Your task to perform on an android device: Open eBay Image 0: 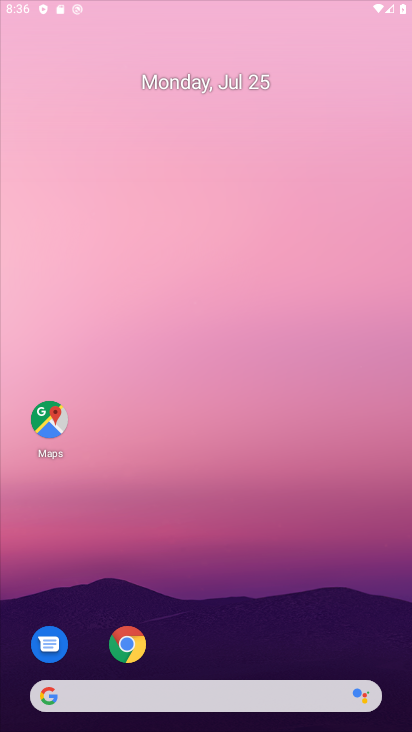
Step 0: click (119, 644)
Your task to perform on an android device: Open eBay Image 1: 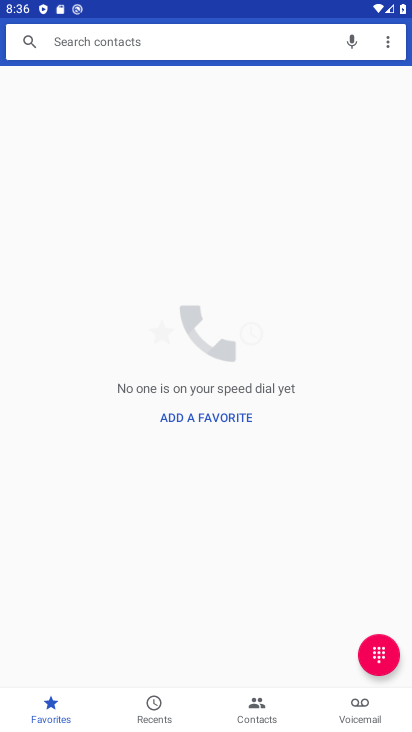
Step 1: press home button
Your task to perform on an android device: Open eBay Image 2: 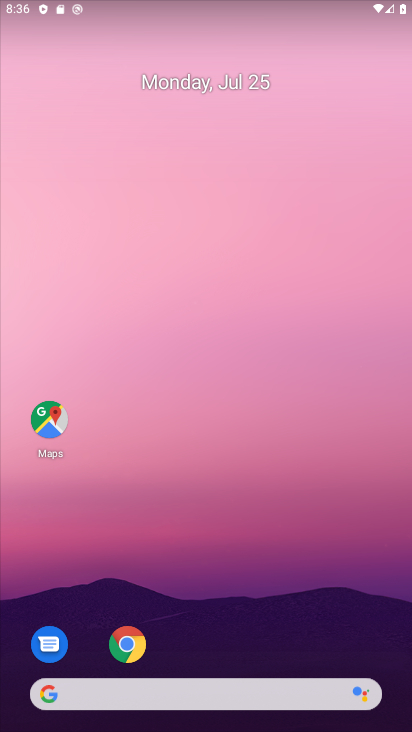
Step 2: click (127, 633)
Your task to perform on an android device: Open eBay Image 3: 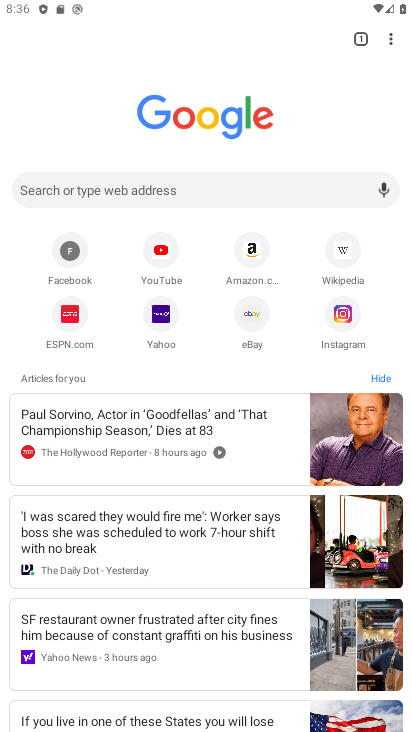
Step 3: click (54, 191)
Your task to perform on an android device: Open eBay Image 4: 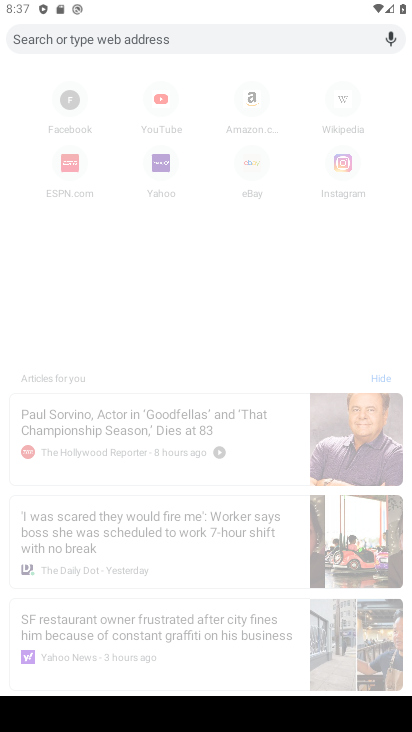
Step 4: type "eBay"
Your task to perform on an android device: Open eBay Image 5: 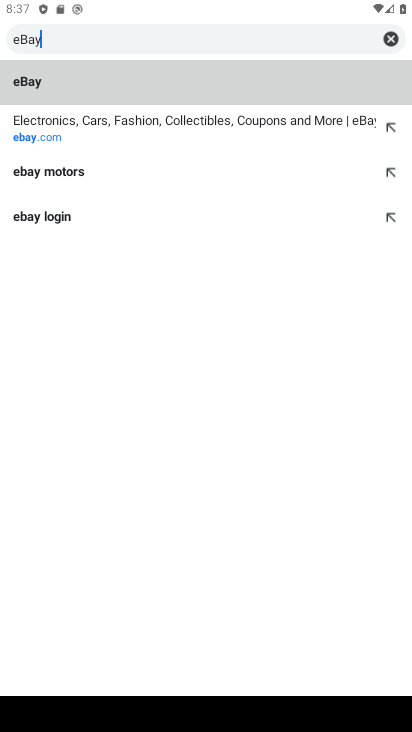
Step 5: click (32, 134)
Your task to perform on an android device: Open eBay Image 6: 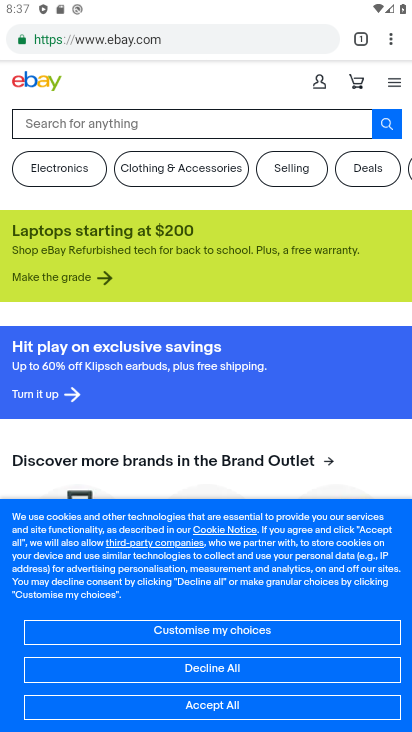
Step 6: task complete